Your task to perform on an android device: Open Google Chrome and click the shortcut for Amazon.com Image 0: 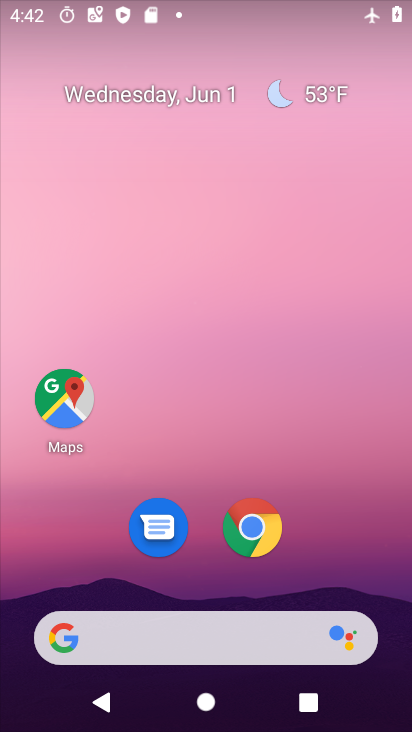
Step 0: drag from (281, 541) to (316, 65)
Your task to perform on an android device: Open Google Chrome and click the shortcut for Amazon.com Image 1: 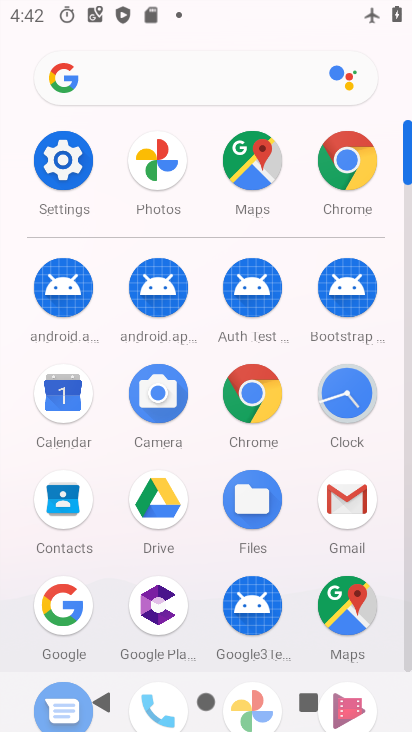
Step 1: drag from (204, 448) to (235, 104)
Your task to perform on an android device: Open Google Chrome and click the shortcut for Amazon.com Image 2: 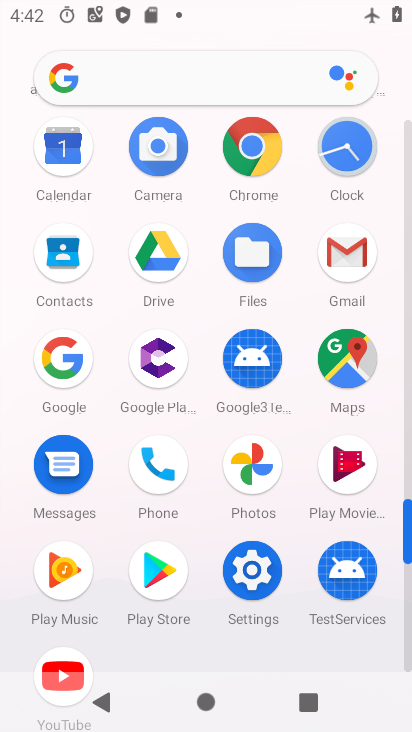
Step 2: click (260, 146)
Your task to perform on an android device: Open Google Chrome and click the shortcut for Amazon.com Image 3: 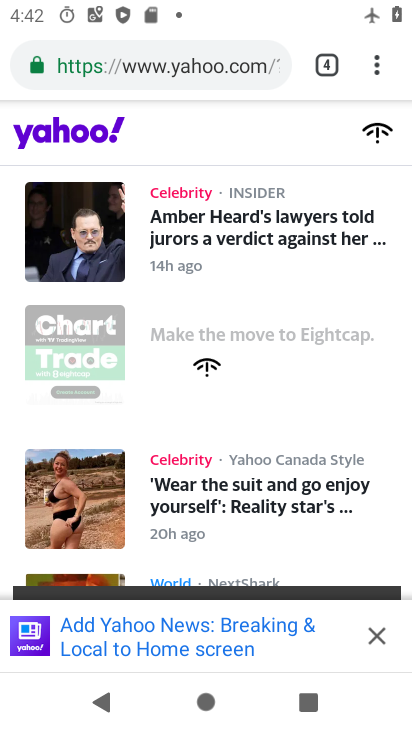
Step 3: drag from (354, 3) to (352, 417)
Your task to perform on an android device: Open Google Chrome and click the shortcut for Amazon.com Image 4: 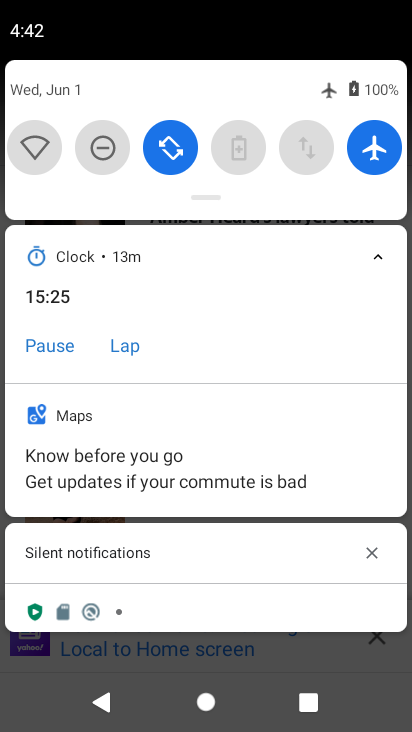
Step 4: click (373, 141)
Your task to perform on an android device: Open Google Chrome and click the shortcut for Amazon.com Image 5: 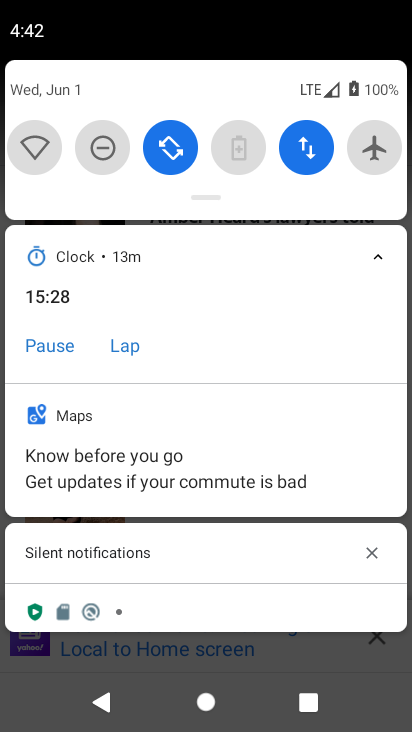
Step 5: click (386, 696)
Your task to perform on an android device: Open Google Chrome and click the shortcut for Amazon.com Image 6: 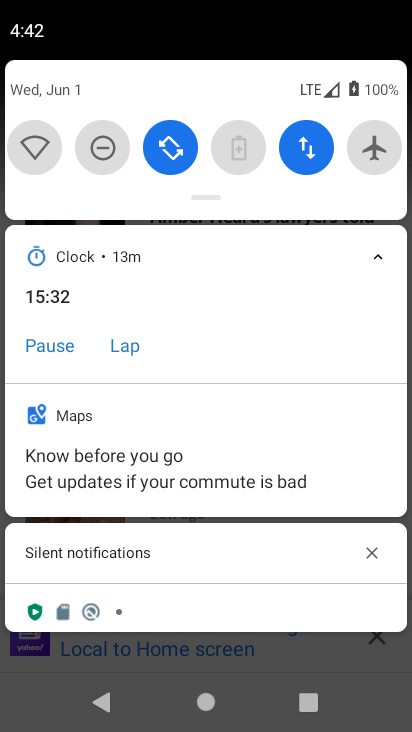
Step 6: click (397, 661)
Your task to perform on an android device: Open Google Chrome and click the shortcut for Amazon.com Image 7: 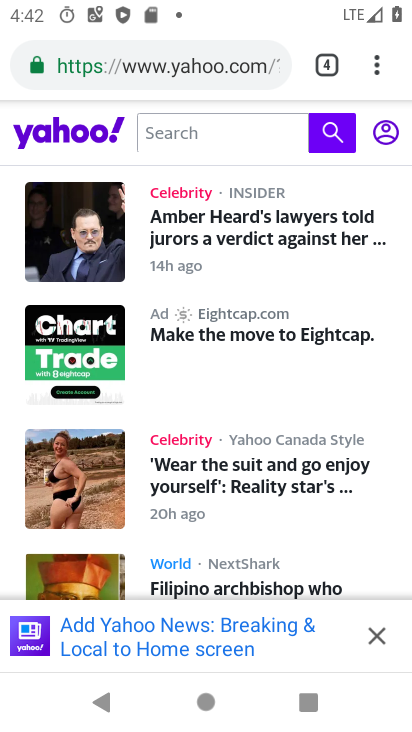
Step 7: drag from (379, 62) to (191, 152)
Your task to perform on an android device: Open Google Chrome and click the shortcut for Amazon.com Image 8: 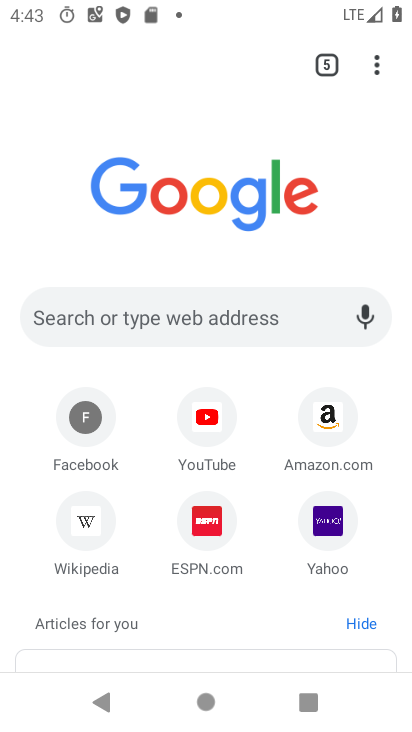
Step 8: click (322, 424)
Your task to perform on an android device: Open Google Chrome and click the shortcut for Amazon.com Image 9: 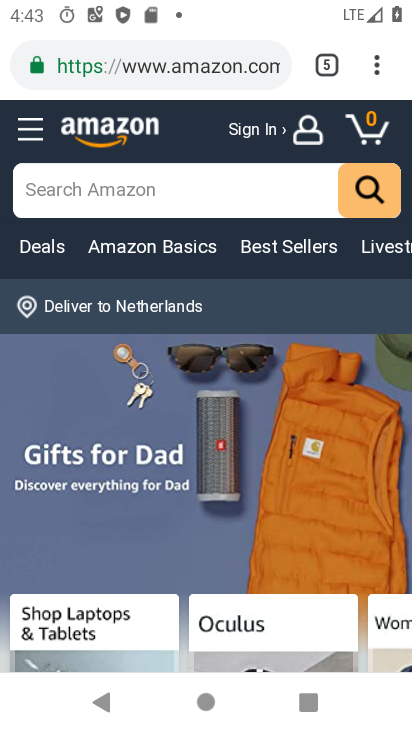
Step 9: task complete